Your task to perform on an android device: When is my next appointment? Image 0: 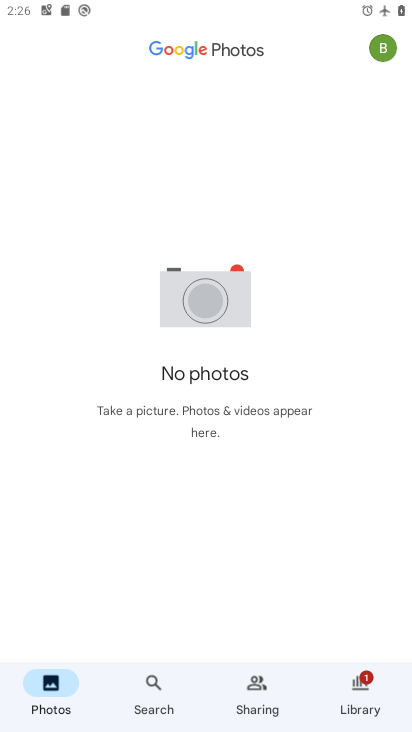
Step 0: press home button
Your task to perform on an android device: When is my next appointment? Image 1: 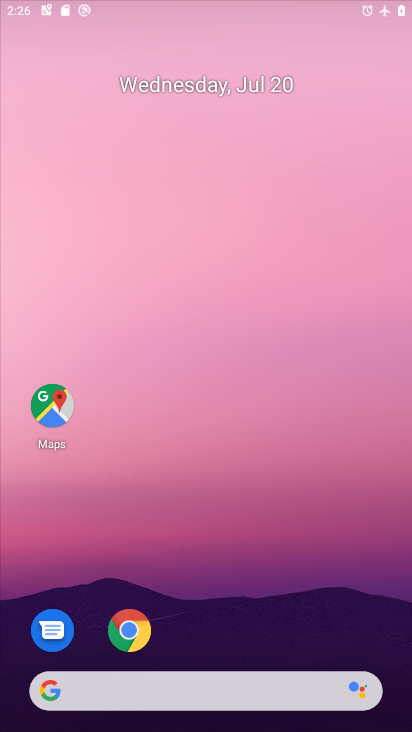
Step 1: drag from (218, 527) to (210, 100)
Your task to perform on an android device: When is my next appointment? Image 2: 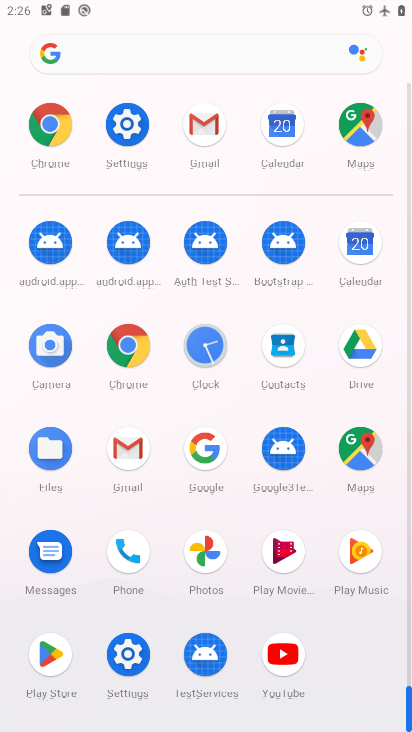
Step 2: click (357, 257)
Your task to perform on an android device: When is my next appointment? Image 3: 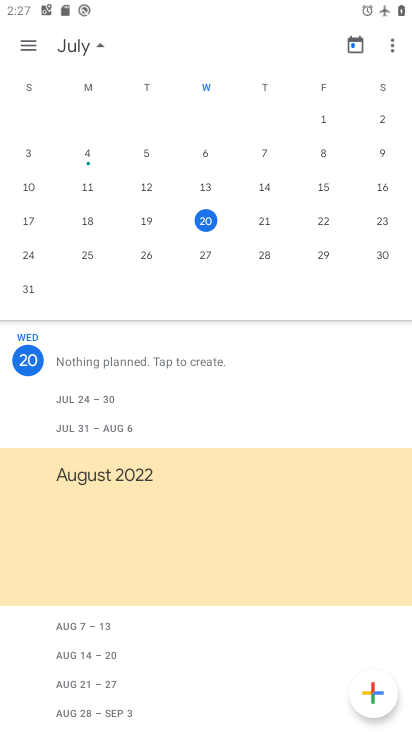
Step 3: click (30, 47)
Your task to perform on an android device: When is my next appointment? Image 4: 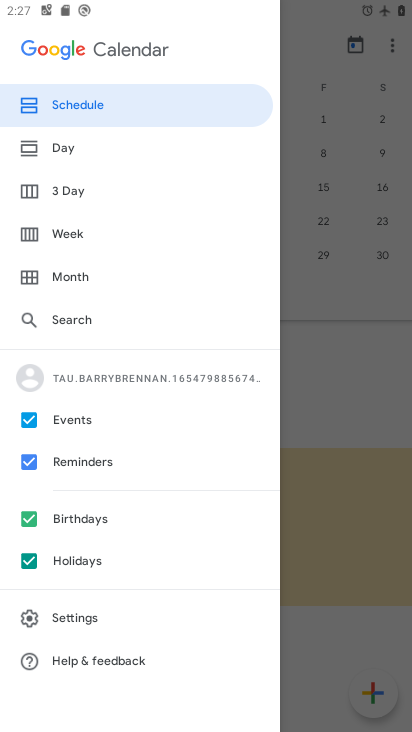
Step 4: click (42, 562)
Your task to perform on an android device: When is my next appointment? Image 5: 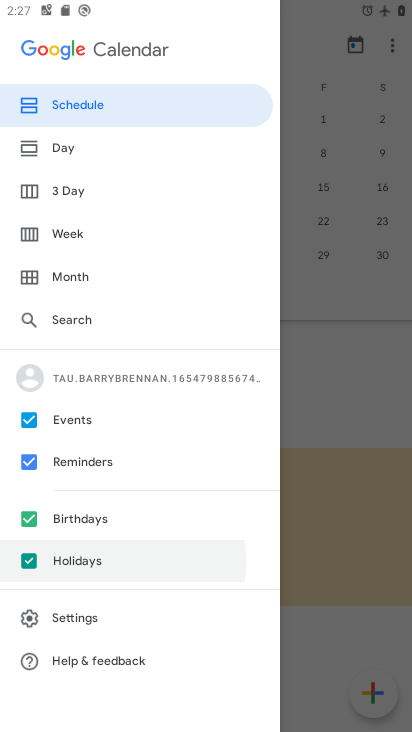
Step 5: click (34, 524)
Your task to perform on an android device: When is my next appointment? Image 6: 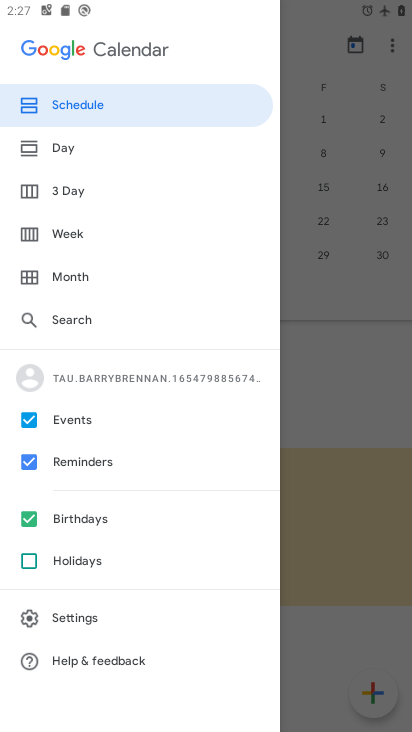
Step 6: click (28, 520)
Your task to perform on an android device: When is my next appointment? Image 7: 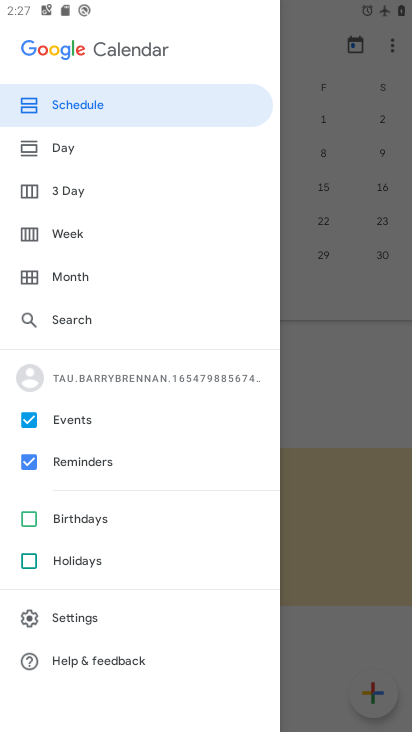
Step 7: click (335, 400)
Your task to perform on an android device: When is my next appointment? Image 8: 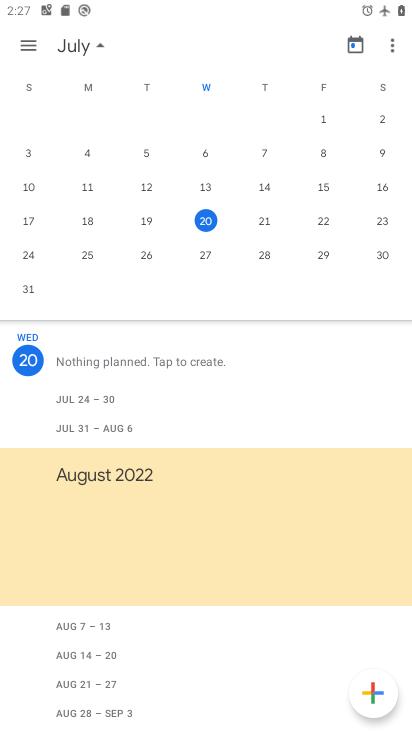
Step 8: task complete